Your task to perform on an android device: manage bookmarks in the chrome app Image 0: 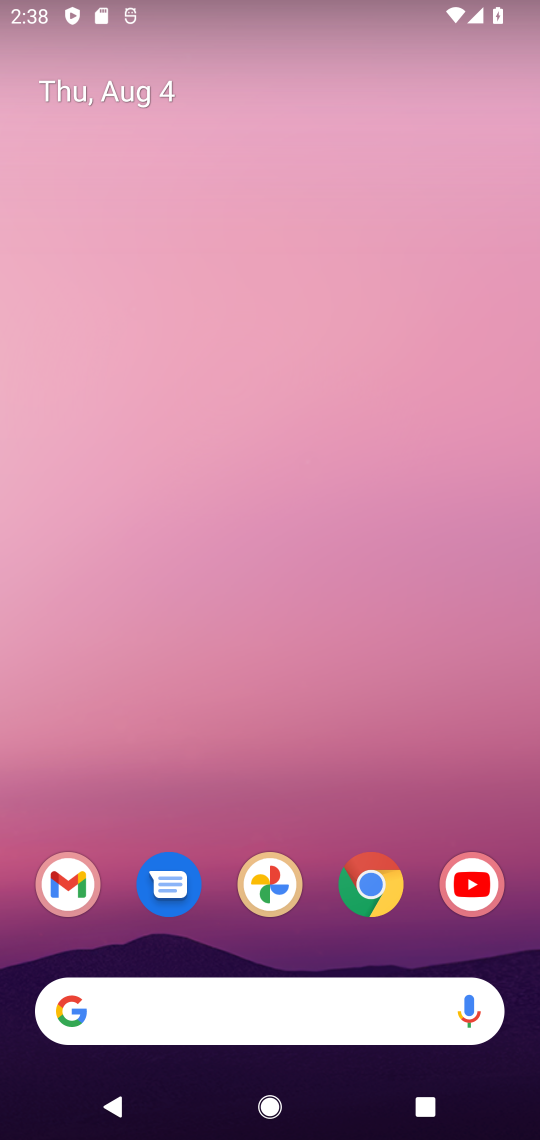
Step 0: drag from (111, 902) to (157, 186)
Your task to perform on an android device: manage bookmarks in the chrome app Image 1: 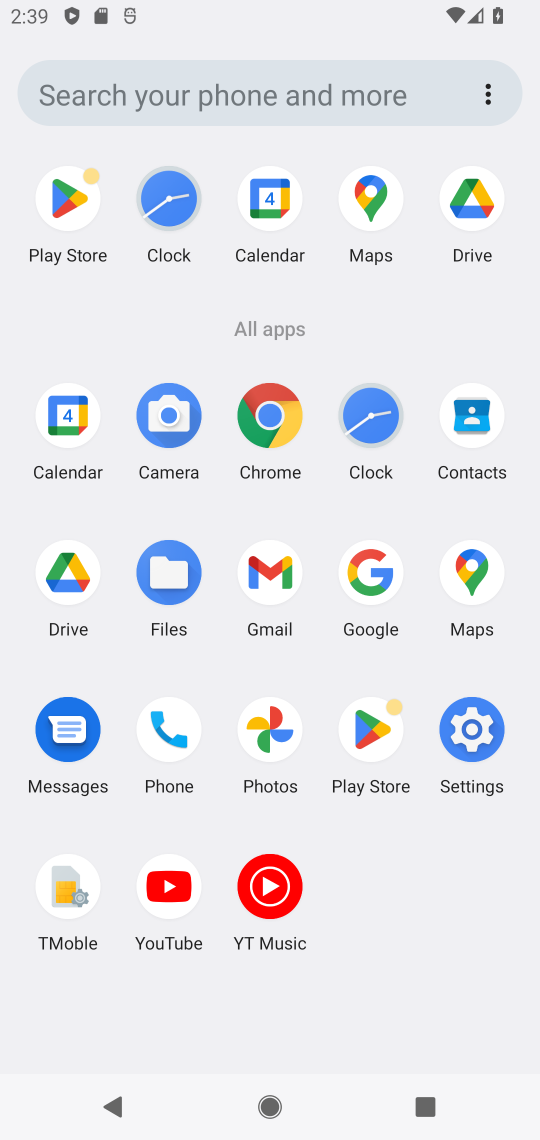
Step 1: click (276, 431)
Your task to perform on an android device: manage bookmarks in the chrome app Image 2: 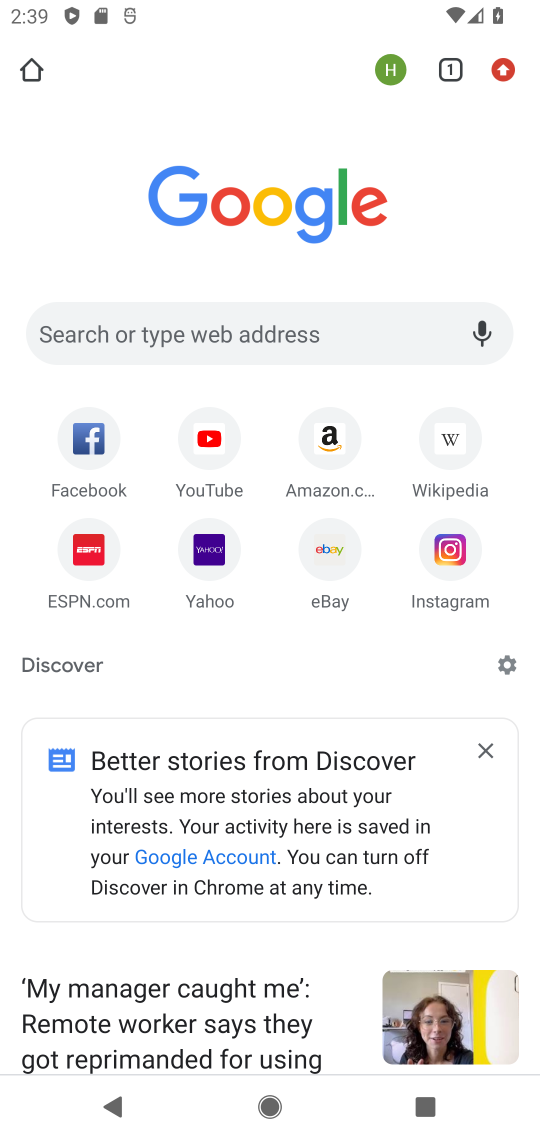
Step 2: click (509, 61)
Your task to perform on an android device: manage bookmarks in the chrome app Image 3: 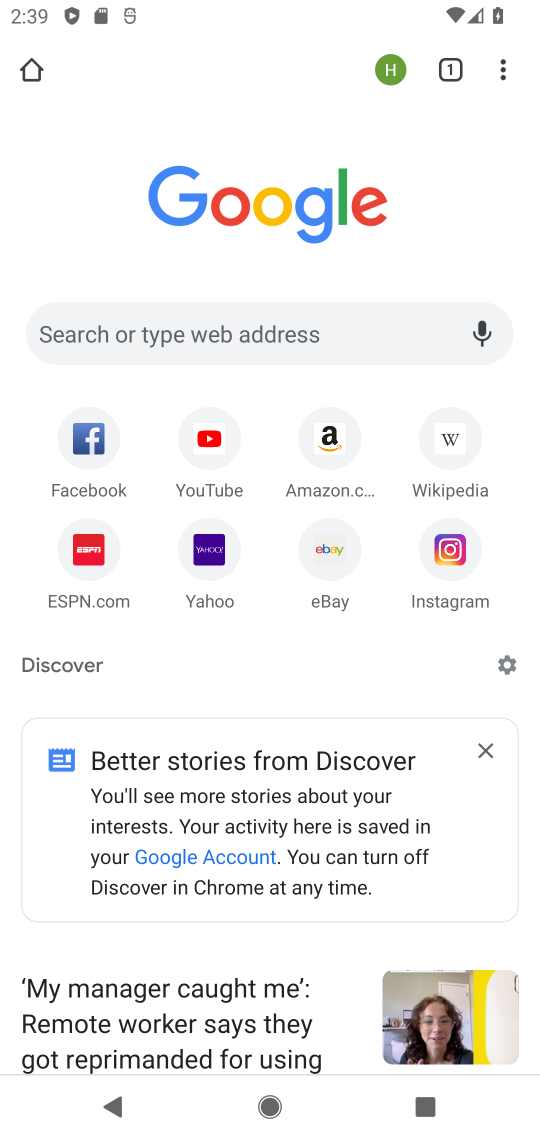
Step 3: click (503, 72)
Your task to perform on an android device: manage bookmarks in the chrome app Image 4: 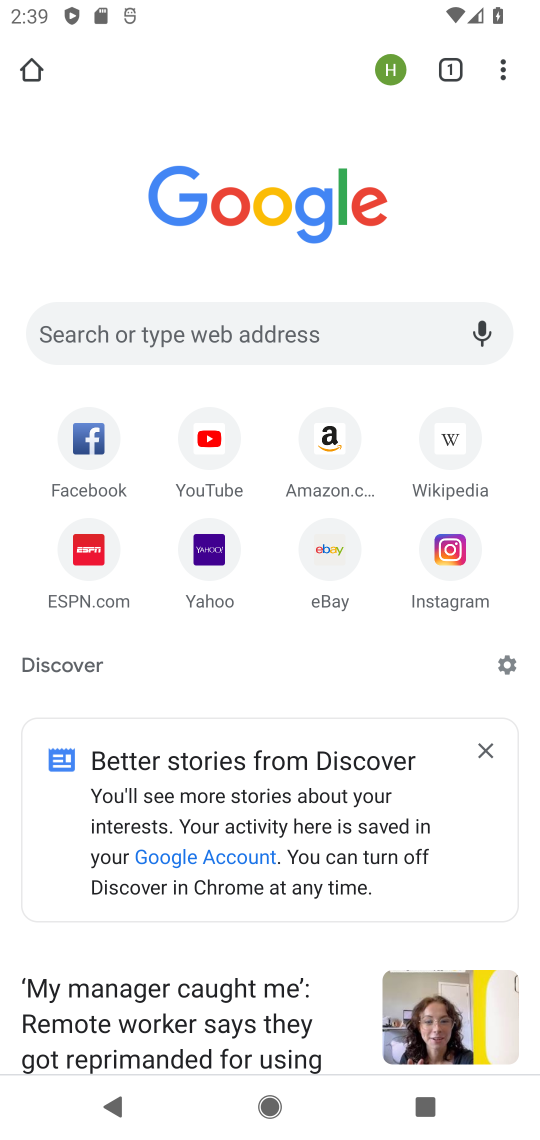
Step 4: click (517, 53)
Your task to perform on an android device: manage bookmarks in the chrome app Image 5: 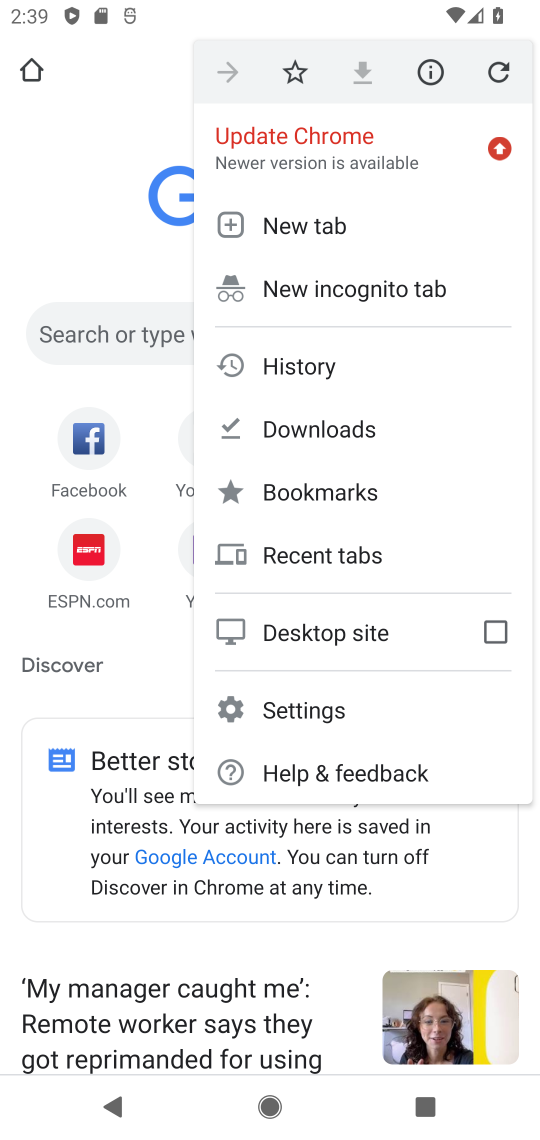
Step 5: click (361, 505)
Your task to perform on an android device: manage bookmarks in the chrome app Image 6: 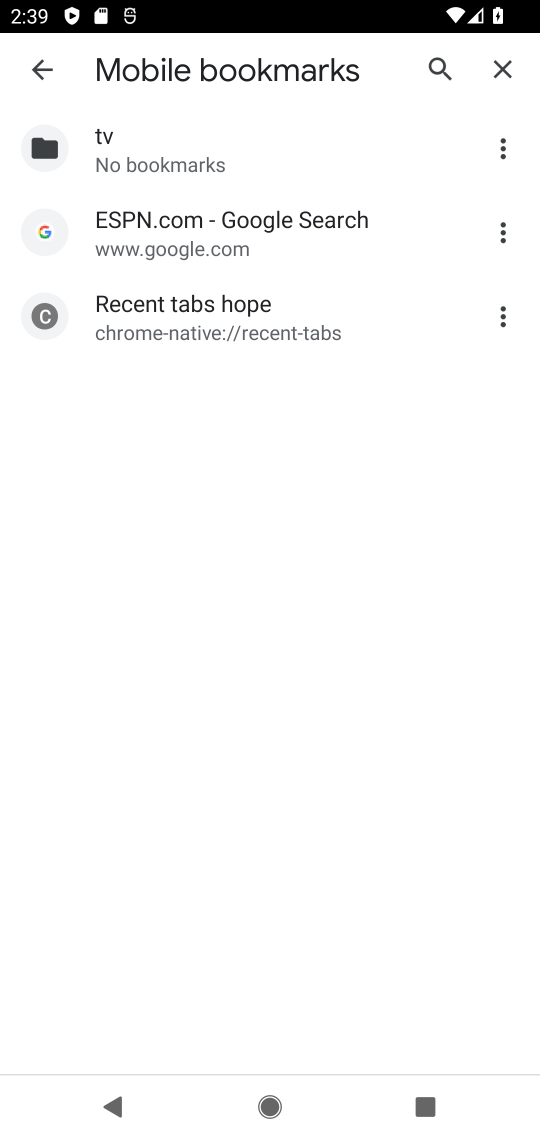
Step 6: click (196, 226)
Your task to perform on an android device: manage bookmarks in the chrome app Image 7: 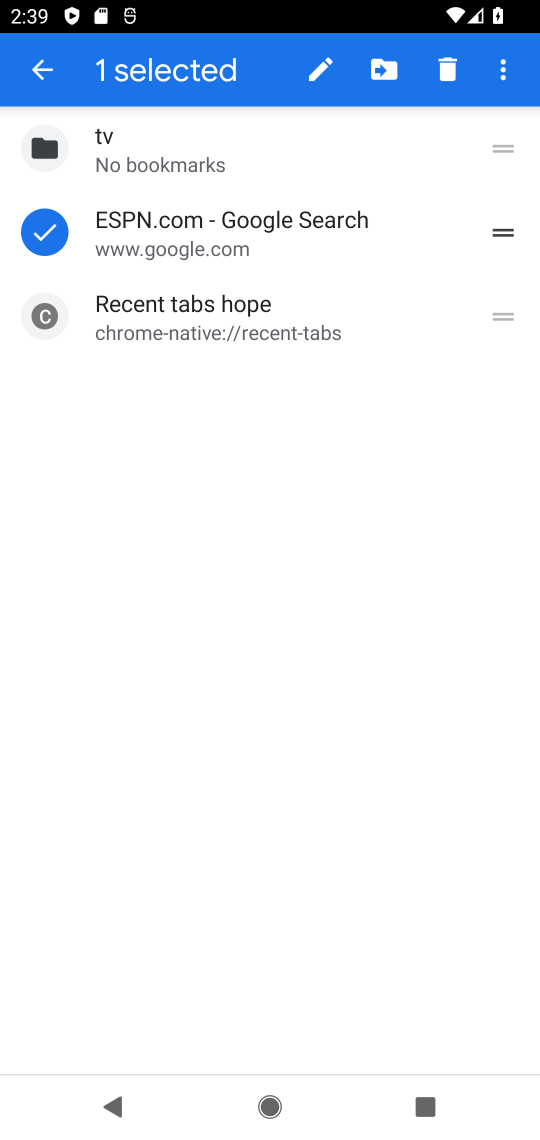
Step 7: click (202, 308)
Your task to perform on an android device: manage bookmarks in the chrome app Image 8: 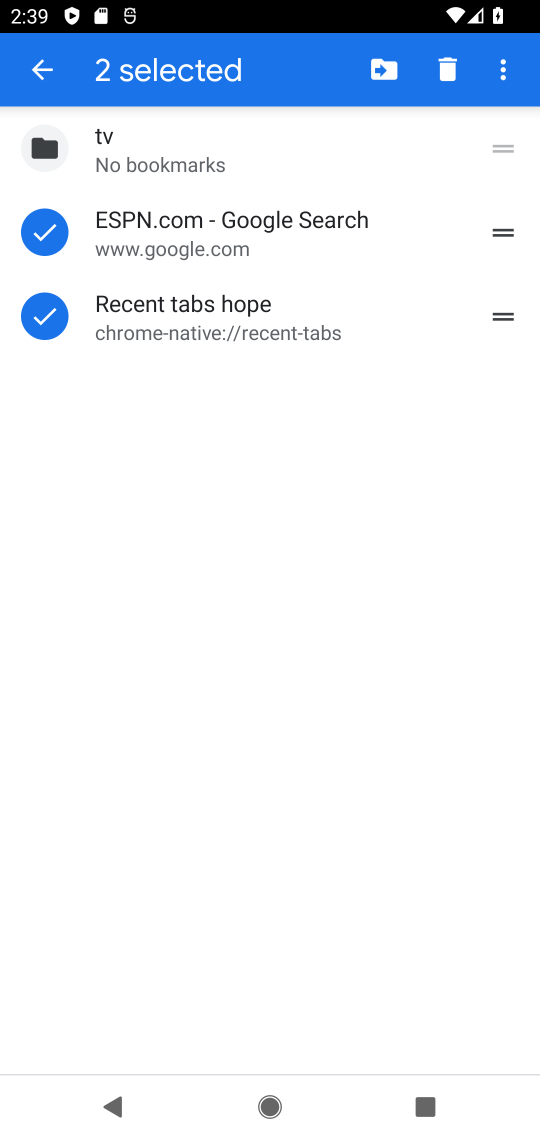
Step 8: click (399, 59)
Your task to perform on an android device: manage bookmarks in the chrome app Image 9: 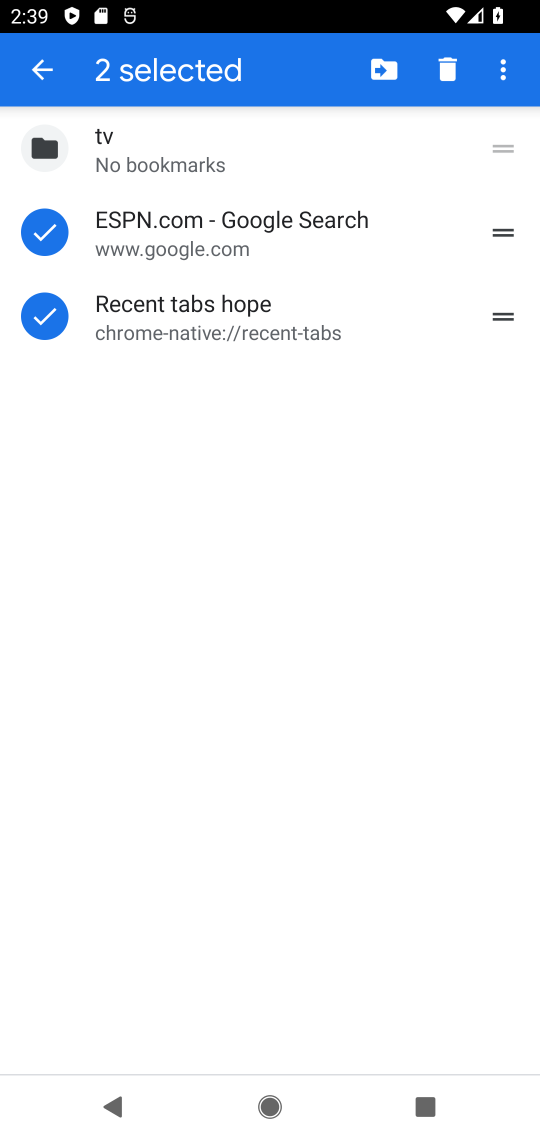
Step 9: click (354, 46)
Your task to perform on an android device: manage bookmarks in the chrome app Image 10: 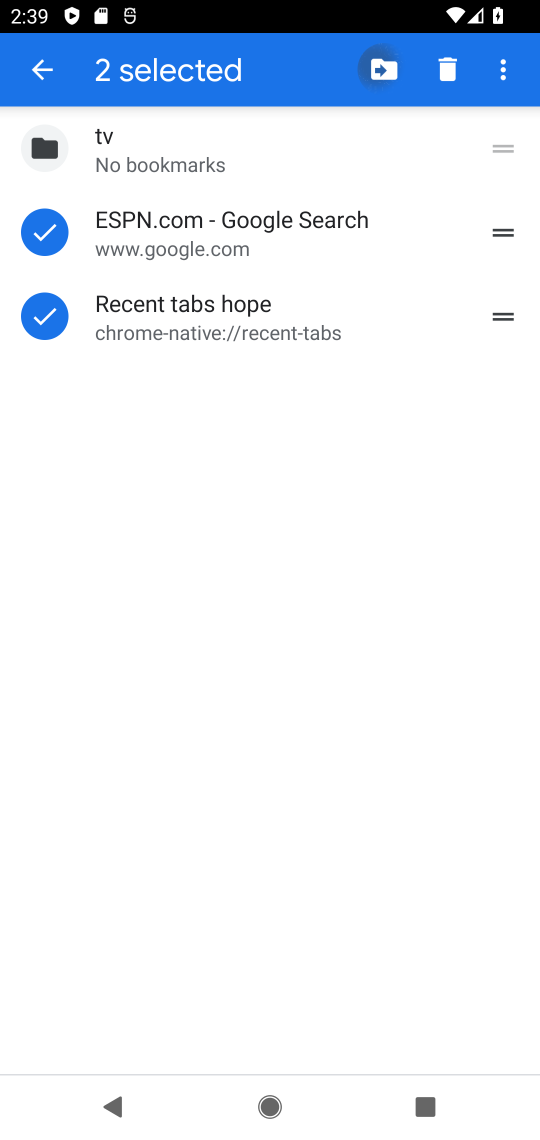
Step 10: click (368, 87)
Your task to perform on an android device: manage bookmarks in the chrome app Image 11: 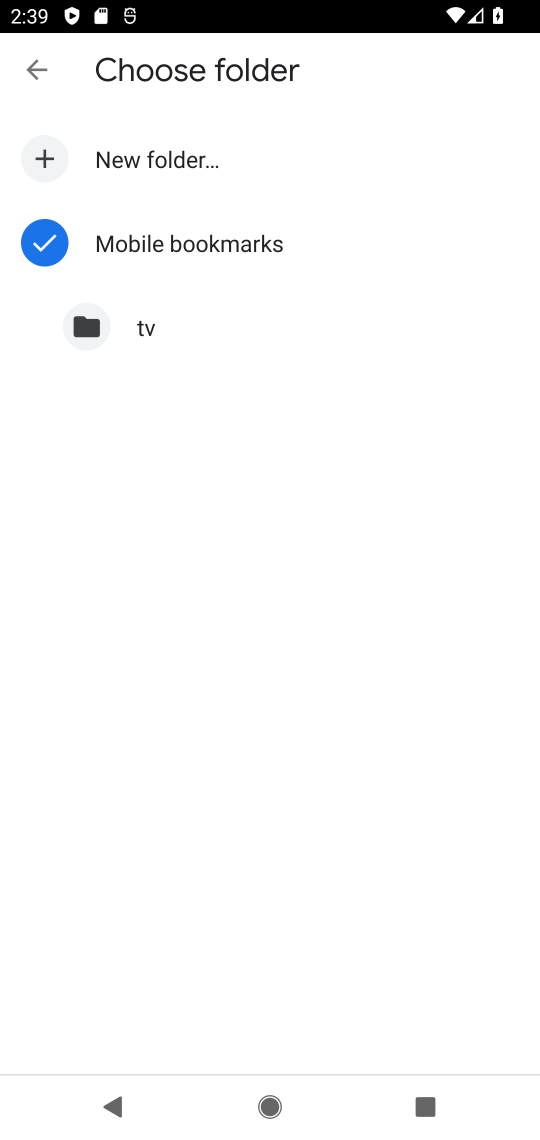
Step 11: click (145, 347)
Your task to perform on an android device: manage bookmarks in the chrome app Image 12: 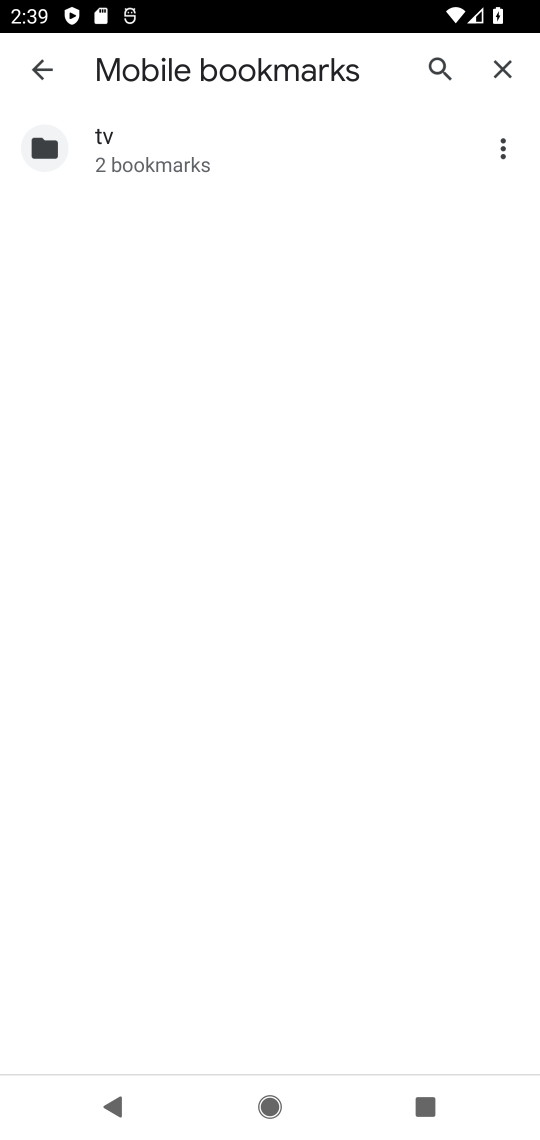
Step 12: task complete